Your task to perform on an android device: What's the weather? Image 0: 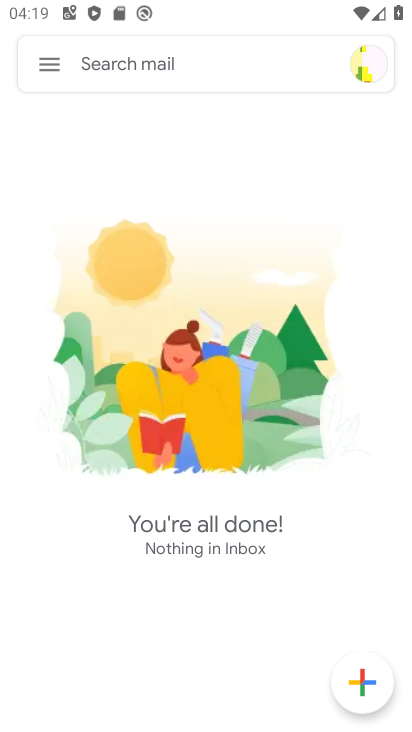
Step 0: press home button
Your task to perform on an android device: What's the weather? Image 1: 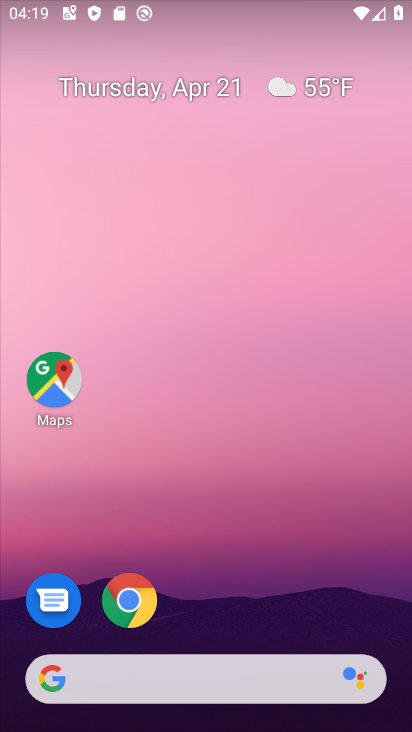
Step 1: drag from (253, 460) to (235, 8)
Your task to perform on an android device: What's the weather? Image 2: 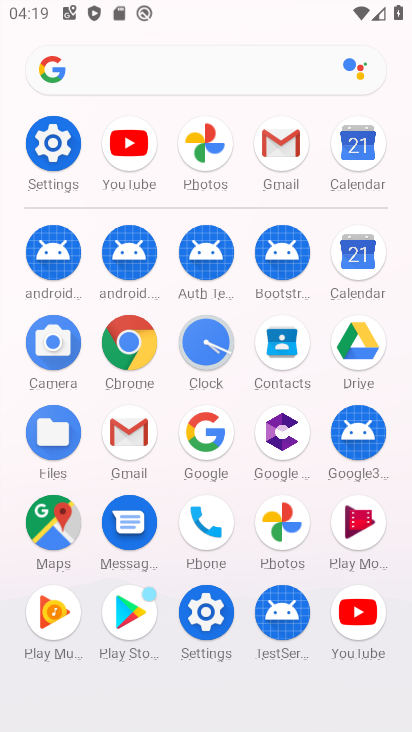
Step 2: click (147, 58)
Your task to perform on an android device: What's the weather? Image 3: 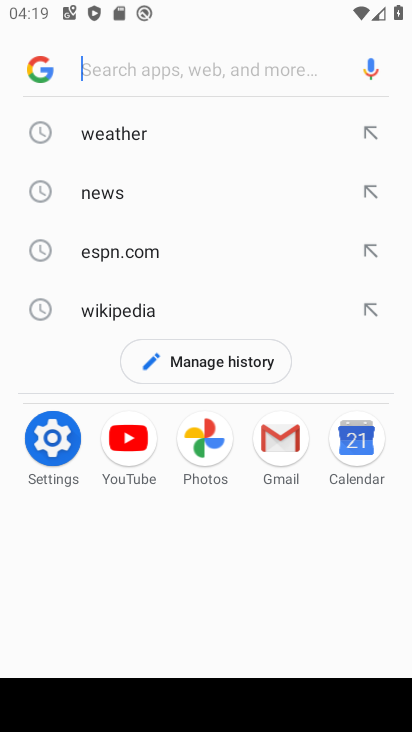
Step 3: type "weather"
Your task to perform on an android device: What's the weather? Image 4: 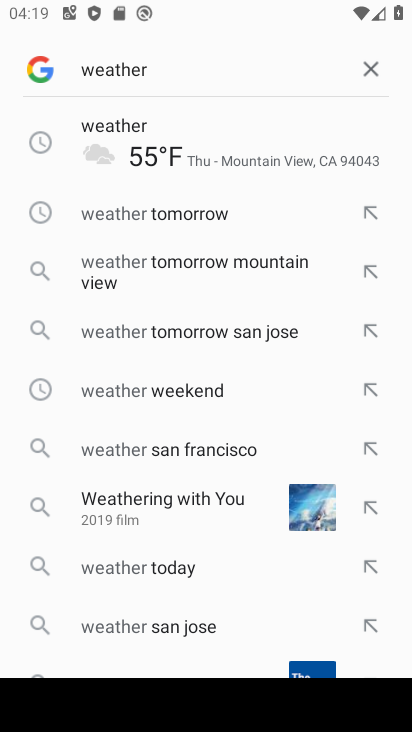
Step 4: click (183, 145)
Your task to perform on an android device: What's the weather? Image 5: 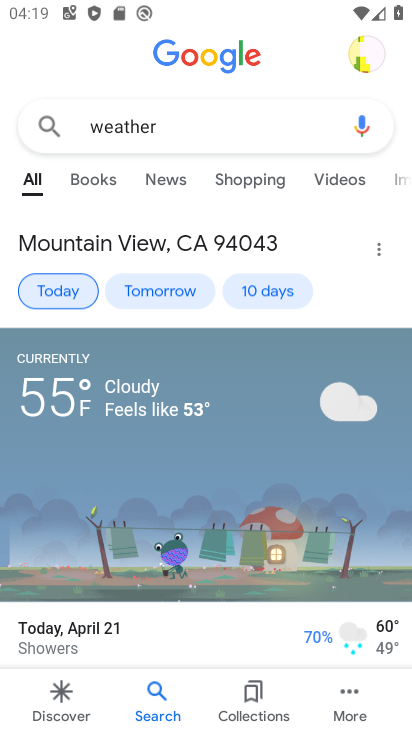
Step 5: task complete